Your task to perform on an android device: toggle javascript in the chrome app Image 0: 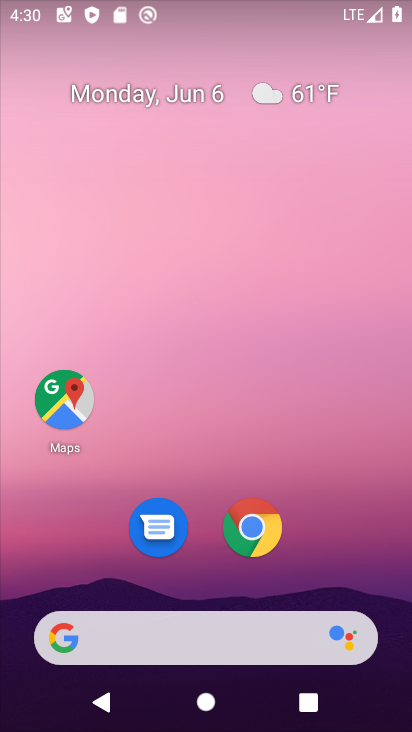
Step 0: click (255, 527)
Your task to perform on an android device: toggle javascript in the chrome app Image 1: 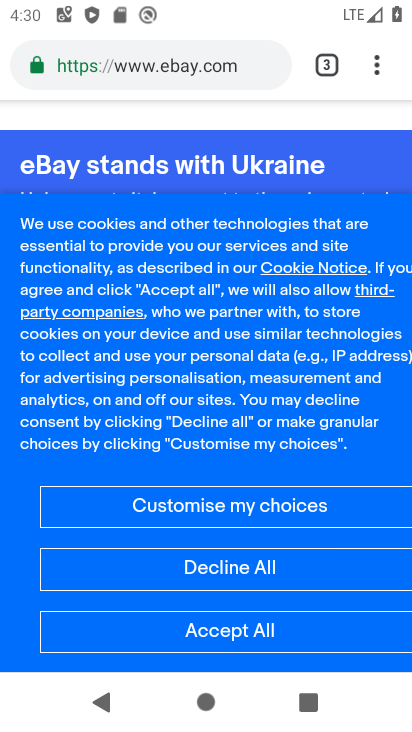
Step 1: click (375, 61)
Your task to perform on an android device: toggle javascript in the chrome app Image 2: 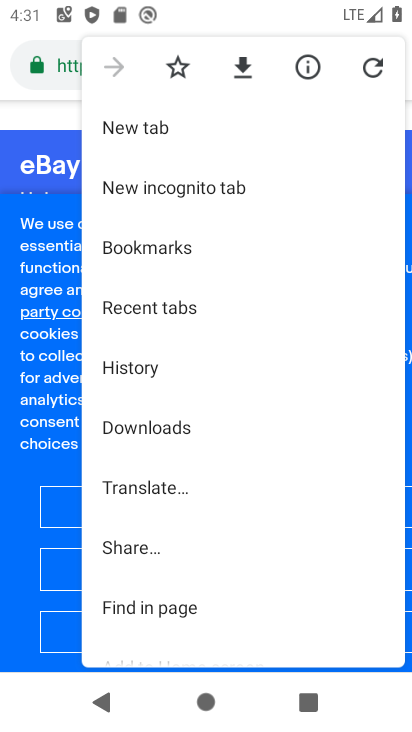
Step 2: drag from (332, 606) to (398, 43)
Your task to perform on an android device: toggle javascript in the chrome app Image 3: 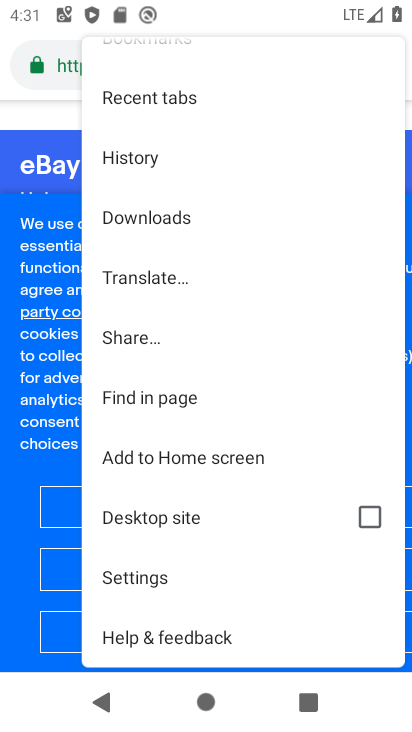
Step 3: click (177, 583)
Your task to perform on an android device: toggle javascript in the chrome app Image 4: 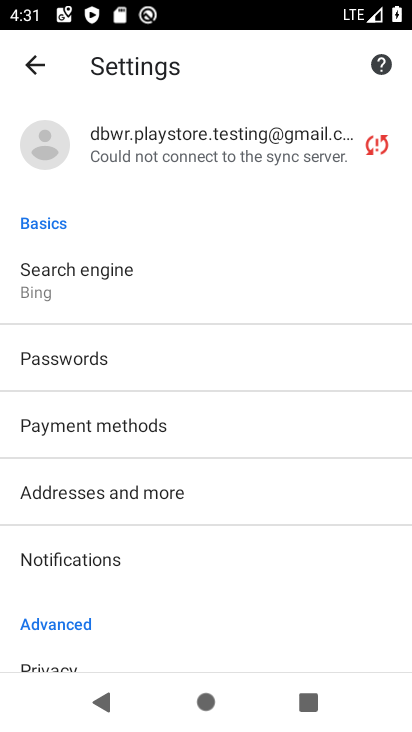
Step 4: drag from (277, 563) to (378, 151)
Your task to perform on an android device: toggle javascript in the chrome app Image 5: 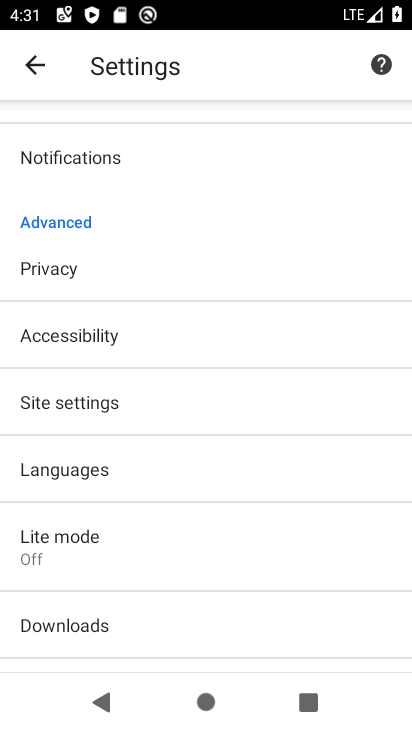
Step 5: click (177, 382)
Your task to perform on an android device: toggle javascript in the chrome app Image 6: 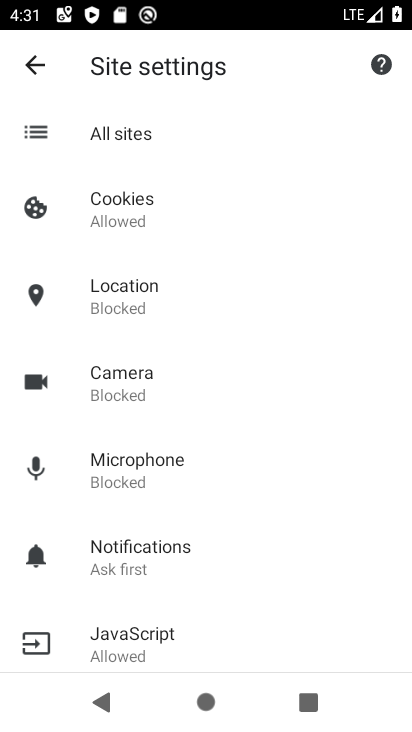
Step 6: click (148, 635)
Your task to perform on an android device: toggle javascript in the chrome app Image 7: 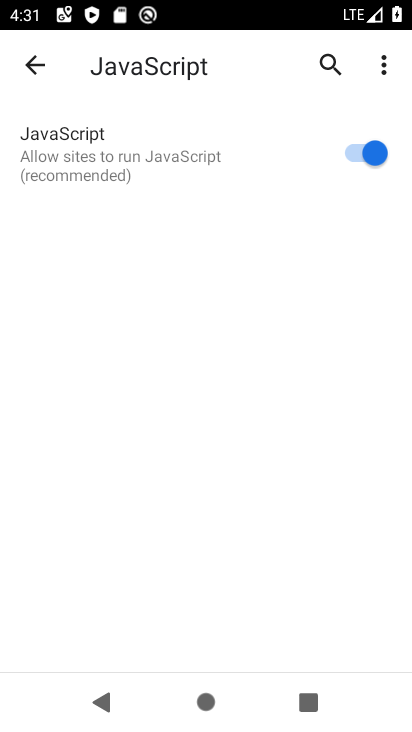
Step 7: click (366, 148)
Your task to perform on an android device: toggle javascript in the chrome app Image 8: 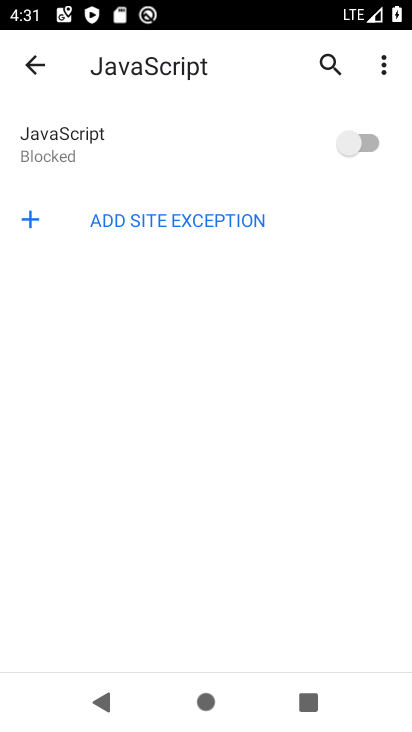
Step 8: task complete